Your task to perform on an android device: Go to Google maps Image 0: 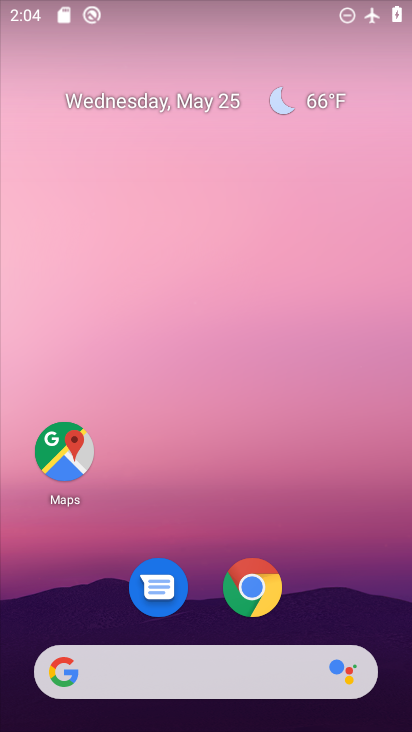
Step 0: drag from (347, 603) to (359, 225)
Your task to perform on an android device: Go to Google maps Image 1: 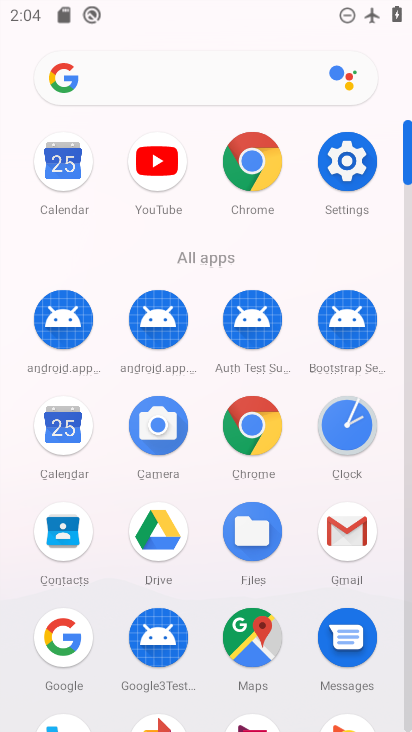
Step 1: click (251, 653)
Your task to perform on an android device: Go to Google maps Image 2: 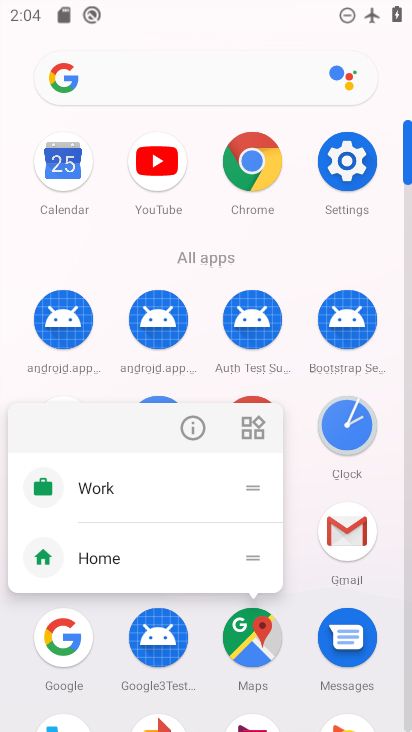
Step 2: click (251, 653)
Your task to perform on an android device: Go to Google maps Image 3: 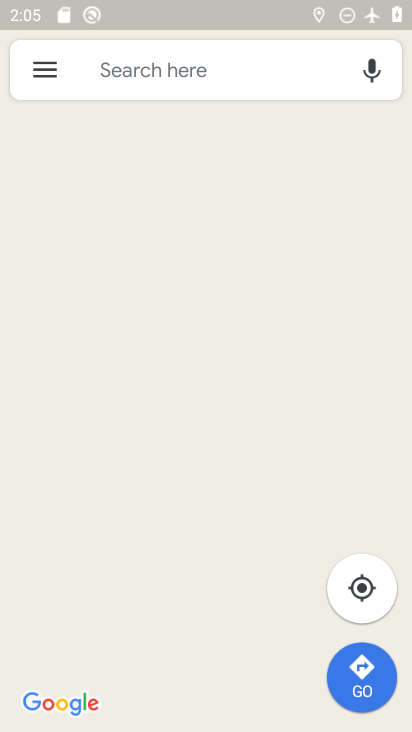
Step 3: task complete